Your task to perform on an android device: allow notifications from all sites in the chrome app Image 0: 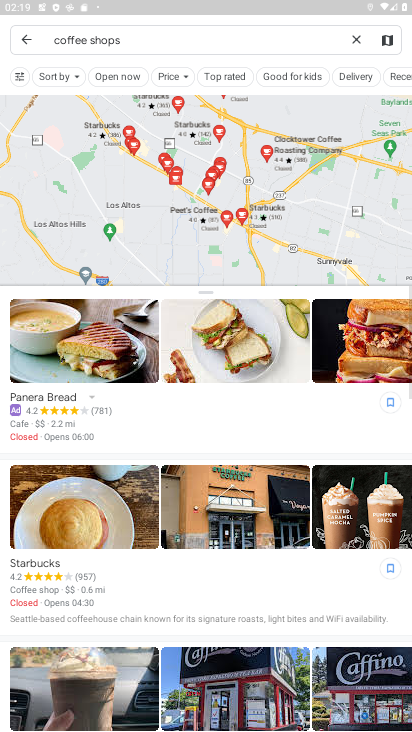
Step 0: press home button
Your task to perform on an android device: allow notifications from all sites in the chrome app Image 1: 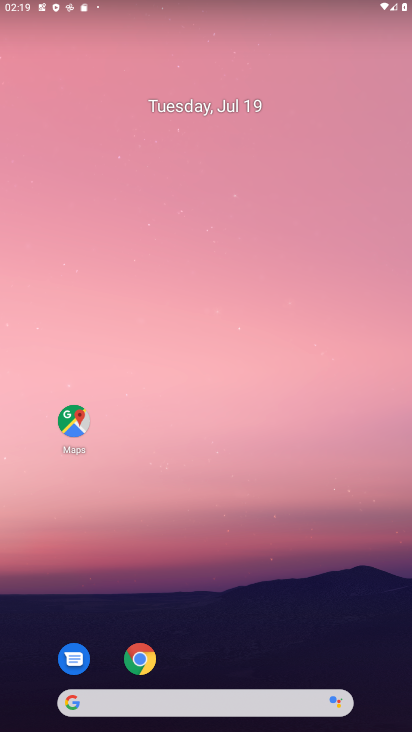
Step 1: drag from (245, 652) to (252, 125)
Your task to perform on an android device: allow notifications from all sites in the chrome app Image 2: 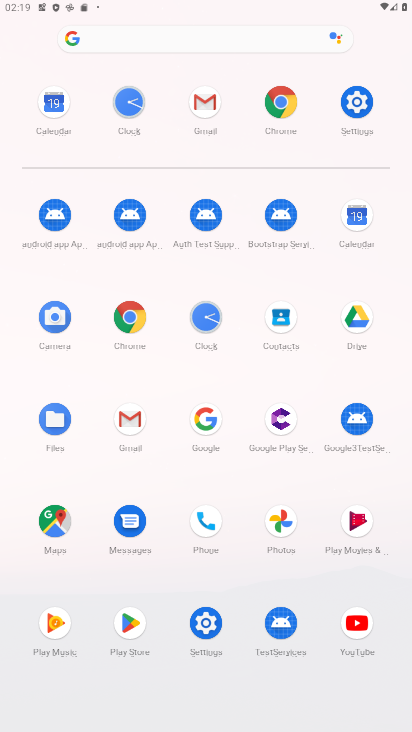
Step 2: click (146, 310)
Your task to perform on an android device: allow notifications from all sites in the chrome app Image 3: 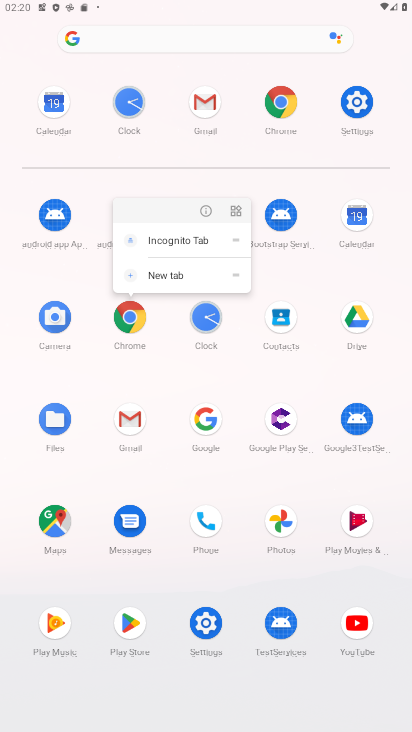
Step 3: click (192, 214)
Your task to perform on an android device: allow notifications from all sites in the chrome app Image 4: 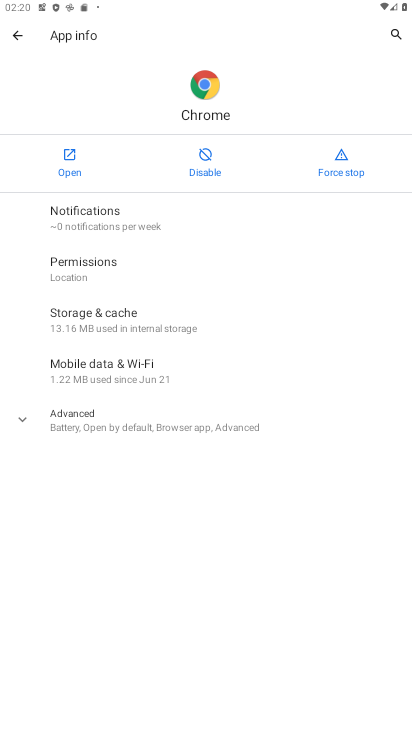
Step 4: click (109, 267)
Your task to perform on an android device: allow notifications from all sites in the chrome app Image 5: 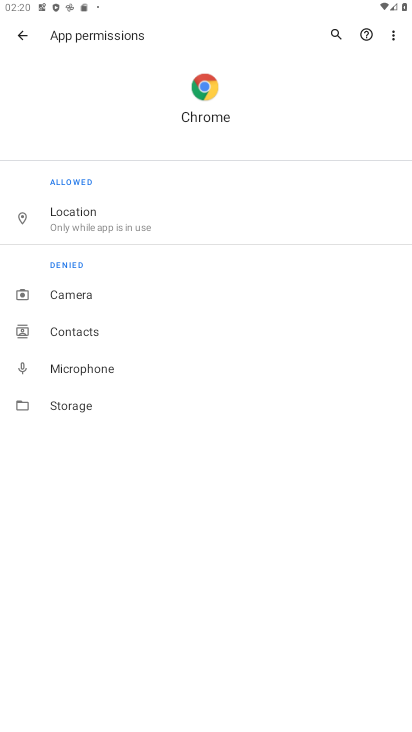
Step 5: click (87, 311)
Your task to perform on an android device: allow notifications from all sites in the chrome app Image 6: 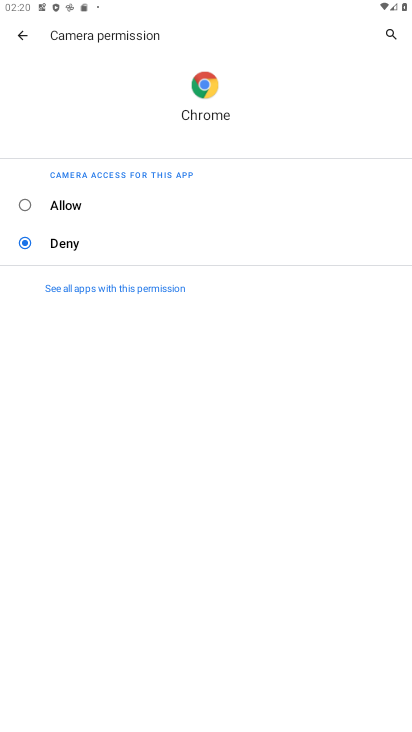
Step 6: click (65, 193)
Your task to perform on an android device: allow notifications from all sites in the chrome app Image 7: 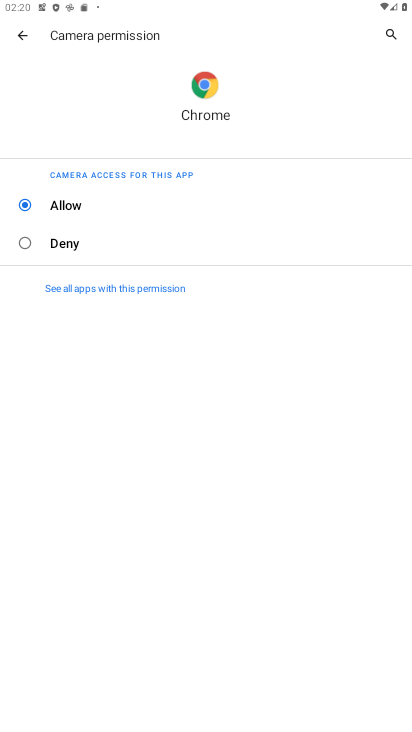
Step 7: click (23, 23)
Your task to perform on an android device: allow notifications from all sites in the chrome app Image 8: 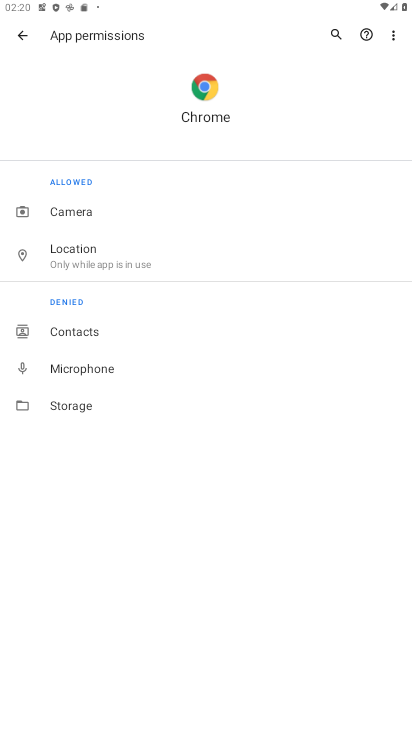
Step 8: click (75, 338)
Your task to perform on an android device: allow notifications from all sites in the chrome app Image 9: 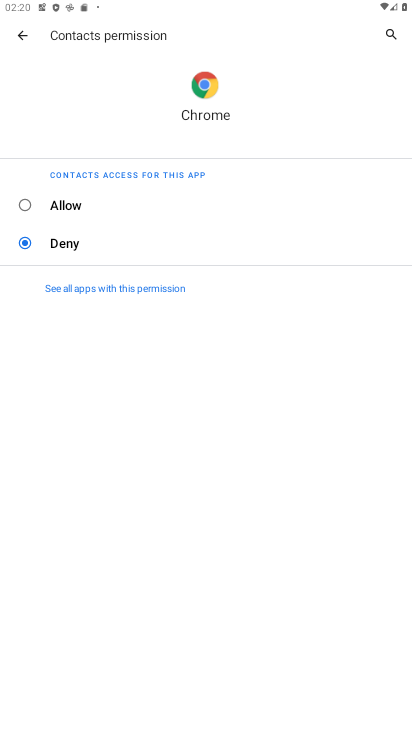
Step 9: click (43, 202)
Your task to perform on an android device: allow notifications from all sites in the chrome app Image 10: 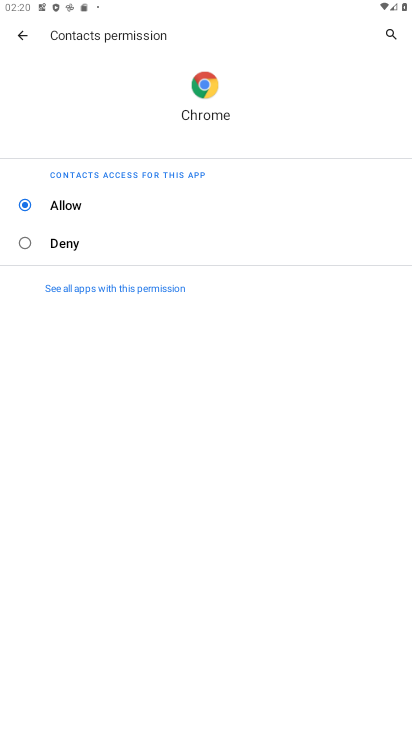
Step 10: click (15, 21)
Your task to perform on an android device: allow notifications from all sites in the chrome app Image 11: 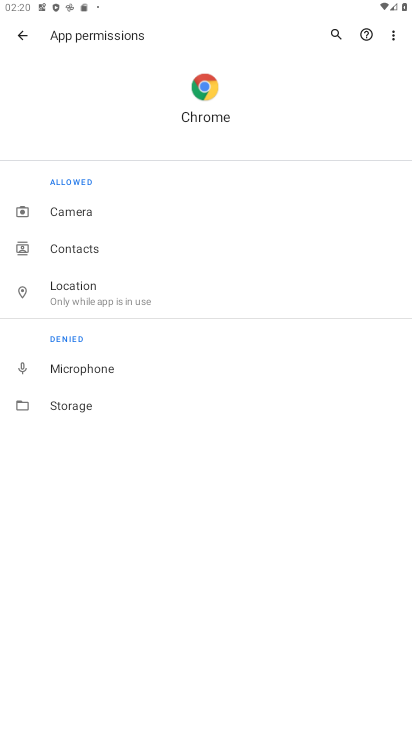
Step 11: click (96, 373)
Your task to perform on an android device: allow notifications from all sites in the chrome app Image 12: 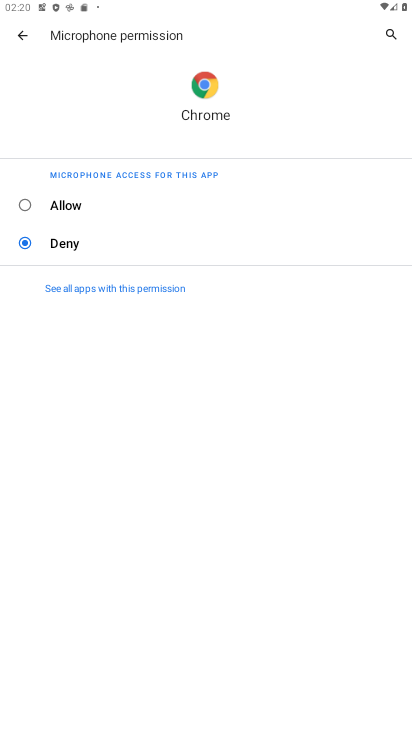
Step 12: click (39, 221)
Your task to perform on an android device: allow notifications from all sites in the chrome app Image 13: 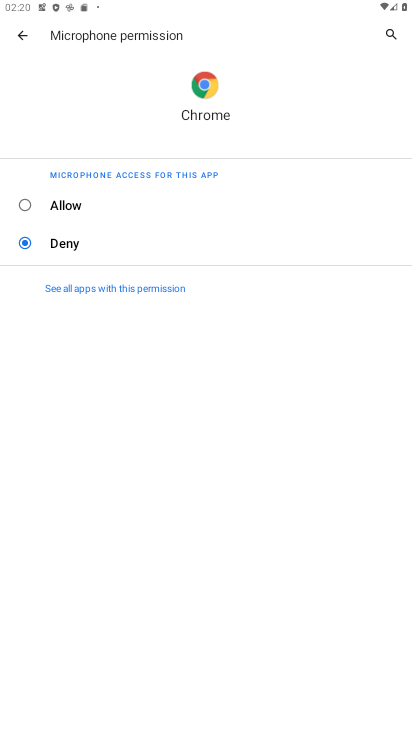
Step 13: click (31, 184)
Your task to perform on an android device: allow notifications from all sites in the chrome app Image 14: 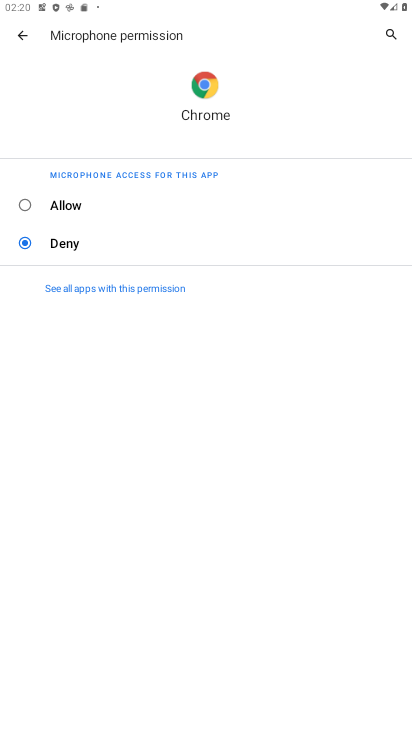
Step 14: click (35, 194)
Your task to perform on an android device: allow notifications from all sites in the chrome app Image 15: 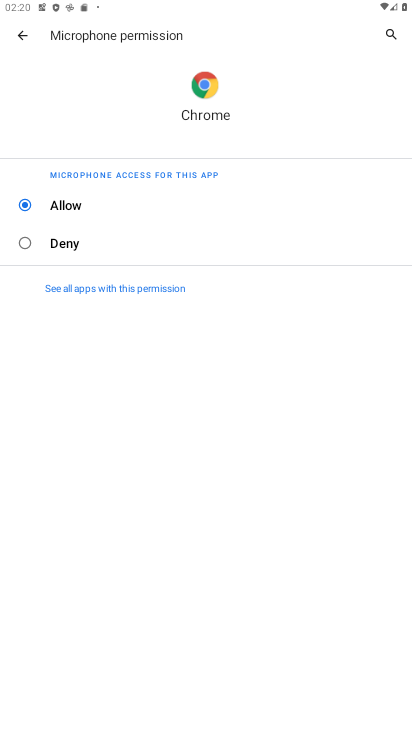
Step 15: click (38, 31)
Your task to perform on an android device: allow notifications from all sites in the chrome app Image 16: 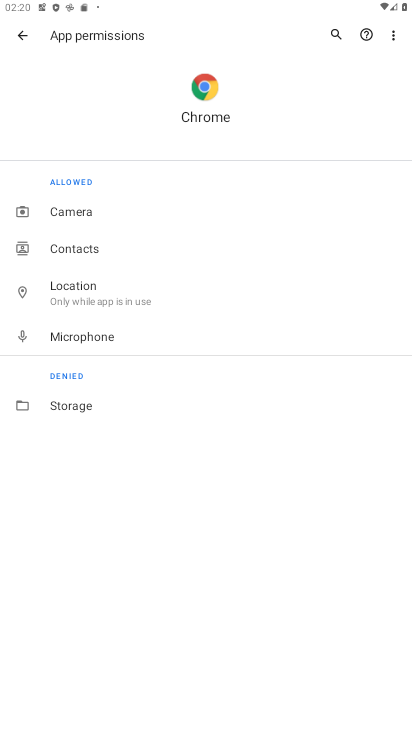
Step 16: click (80, 408)
Your task to perform on an android device: allow notifications from all sites in the chrome app Image 17: 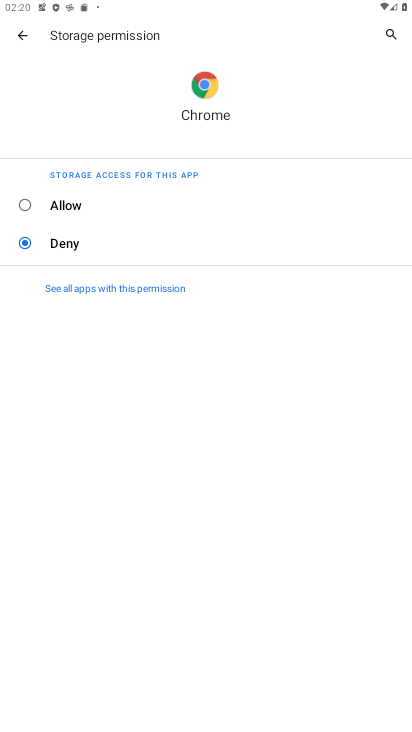
Step 17: click (50, 220)
Your task to perform on an android device: allow notifications from all sites in the chrome app Image 18: 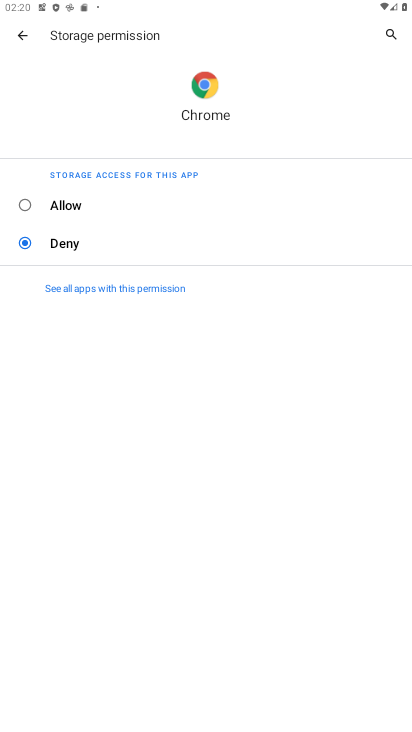
Step 18: click (50, 211)
Your task to perform on an android device: allow notifications from all sites in the chrome app Image 19: 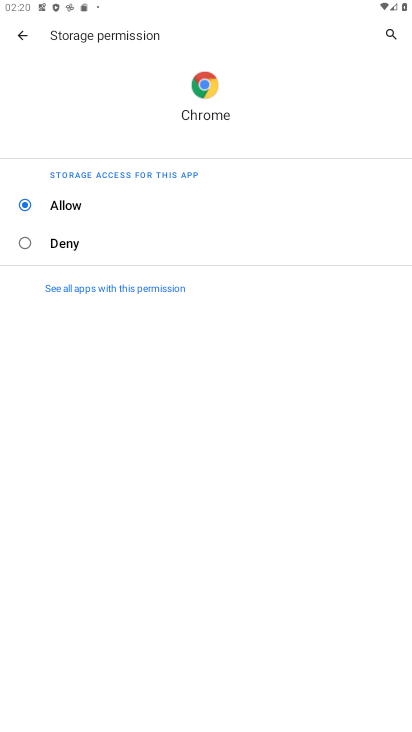
Step 19: click (26, 41)
Your task to perform on an android device: allow notifications from all sites in the chrome app Image 20: 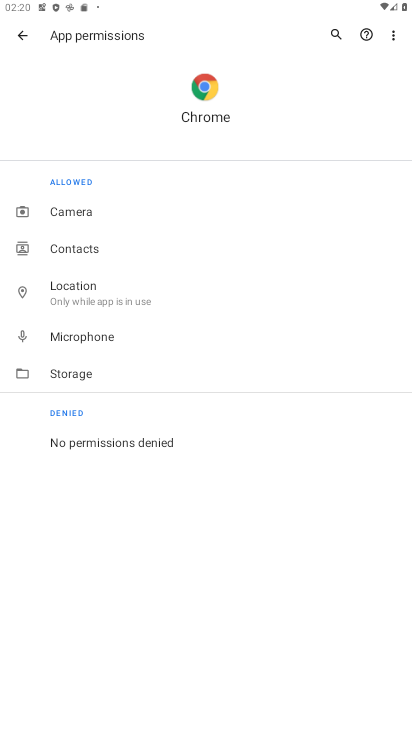
Step 20: task complete